Your task to perform on an android device: all mails in gmail Image 0: 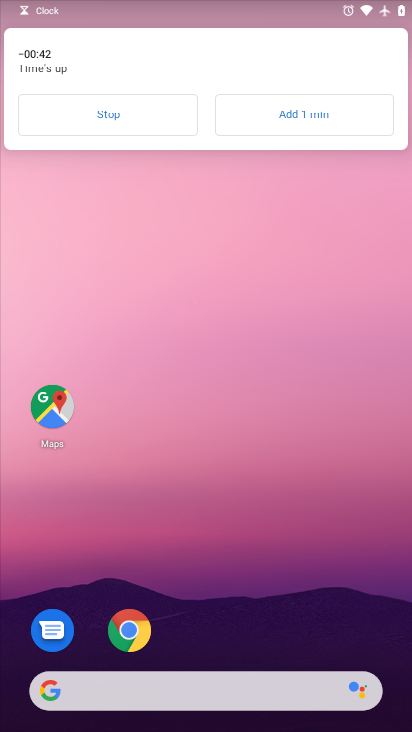
Step 0: click (67, 116)
Your task to perform on an android device: all mails in gmail Image 1: 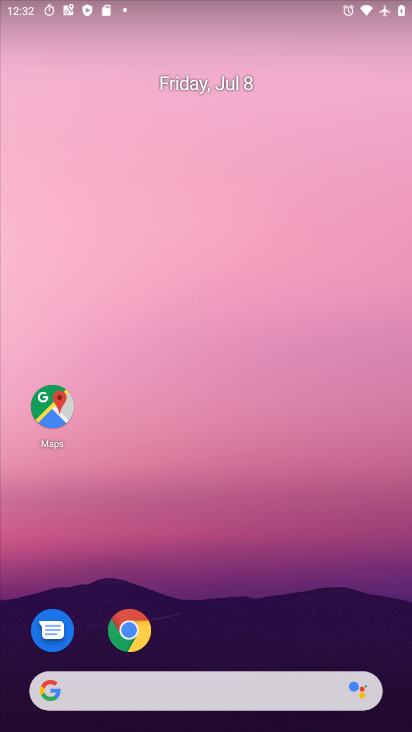
Step 1: drag from (238, 632) to (200, 228)
Your task to perform on an android device: all mails in gmail Image 2: 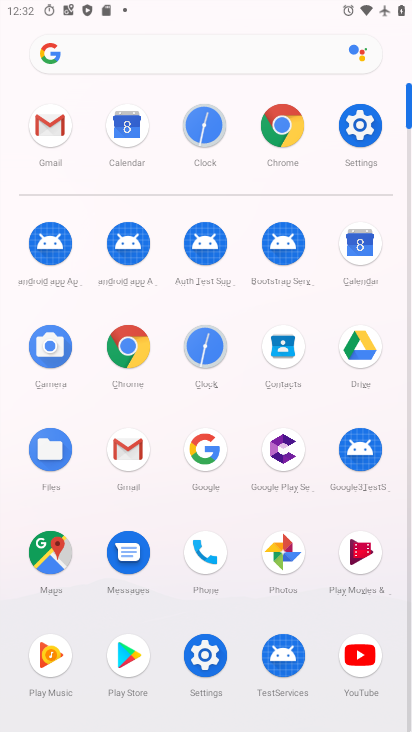
Step 2: click (47, 137)
Your task to perform on an android device: all mails in gmail Image 3: 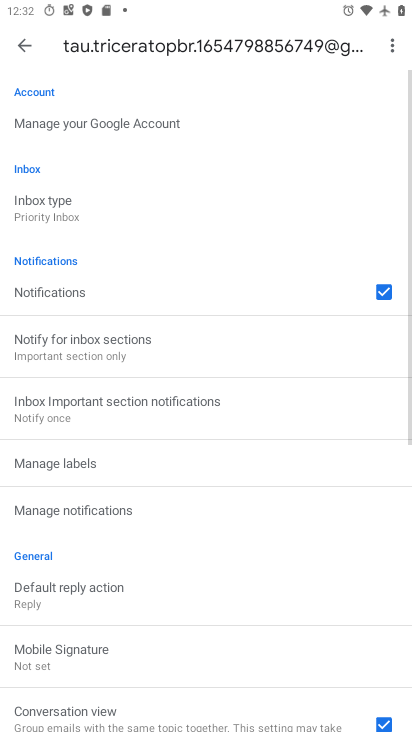
Step 3: click (19, 48)
Your task to perform on an android device: all mails in gmail Image 4: 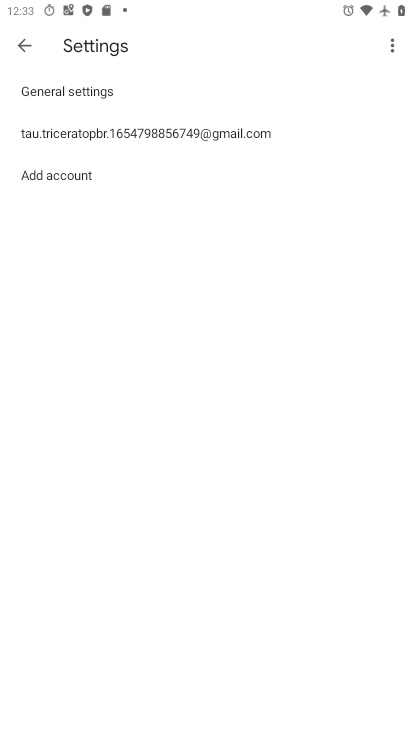
Step 4: click (19, 48)
Your task to perform on an android device: all mails in gmail Image 5: 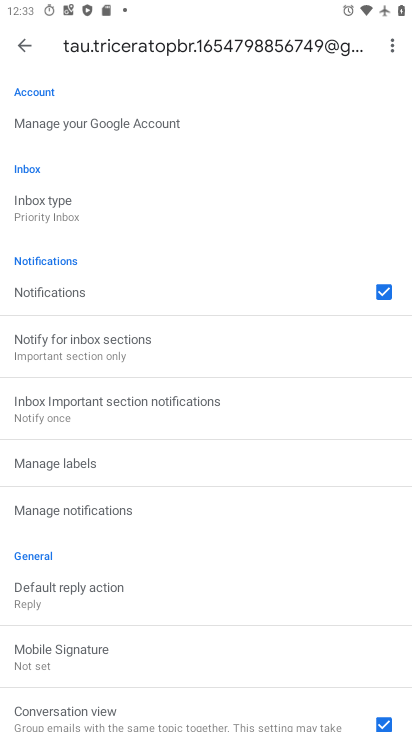
Step 5: click (24, 47)
Your task to perform on an android device: all mails in gmail Image 6: 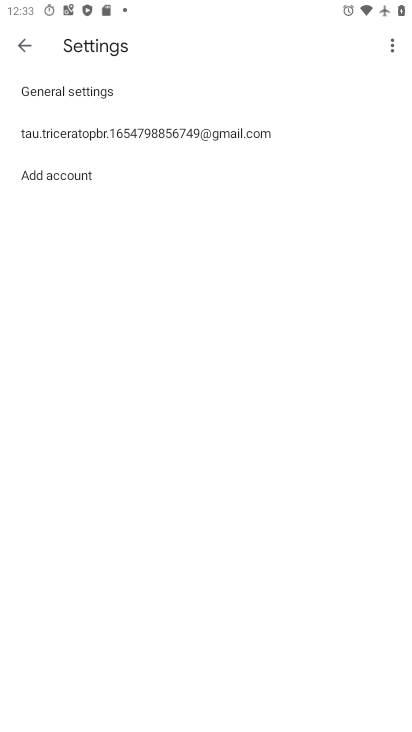
Step 6: click (26, 51)
Your task to perform on an android device: all mails in gmail Image 7: 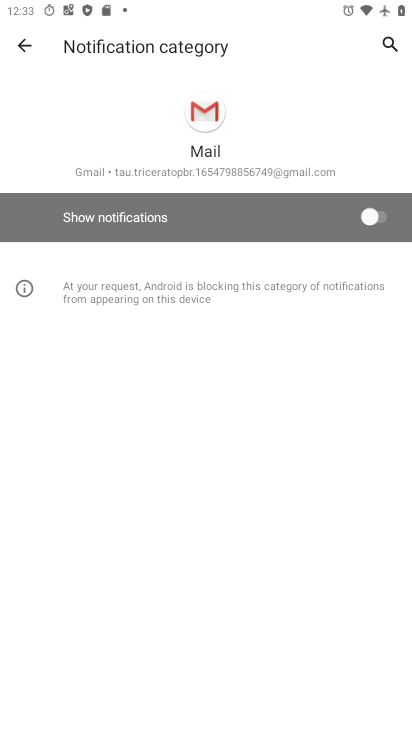
Step 7: click (15, 51)
Your task to perform on an android device: all mails in gmail Image 8: 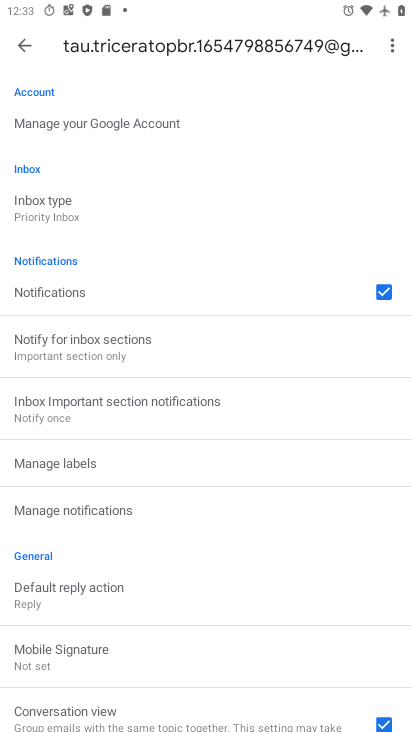
Step 8: press home button
Your task to perform on an android device: all mails in gmail Image 9: 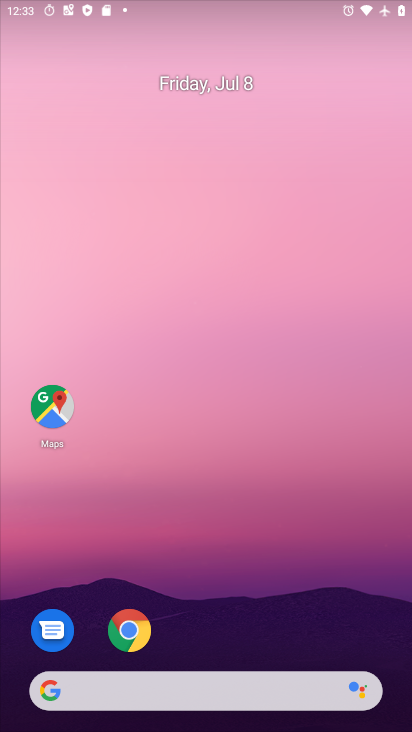
Step 9: drag from (236, 545) to (244, 123)
Your task to perform on an android device: all mails in gmail Image 10: 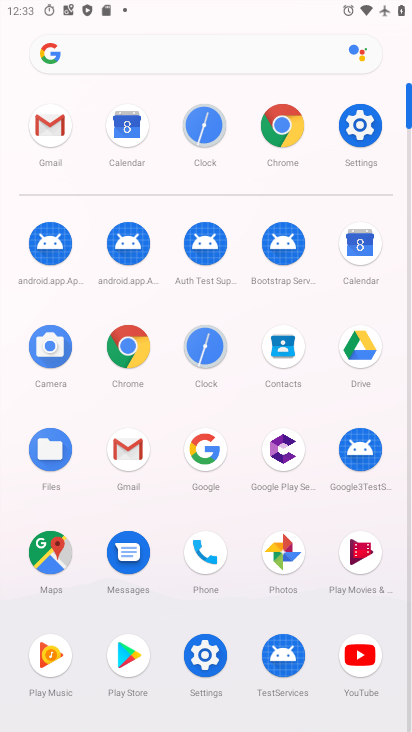
Step 10: click (50, 114)
Your task to perform on an android device: all mails in gmail Image 11: 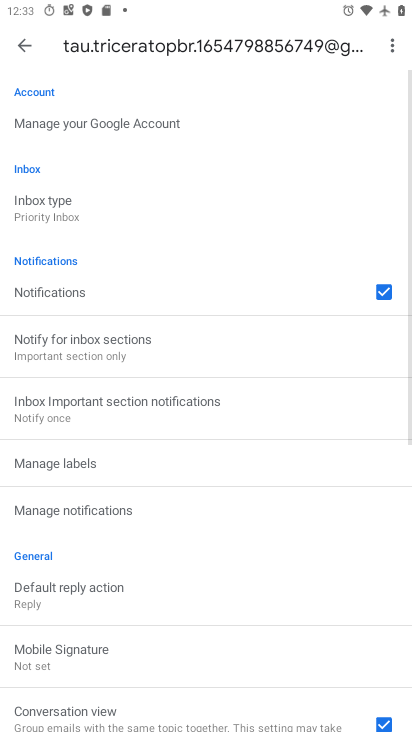
Step 11: click (21, 47)
Your task to perform on an android device: all mails in gmail Image 12: 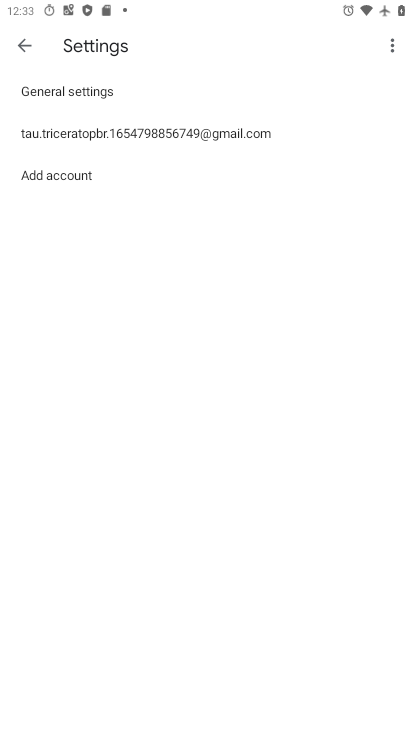
Step 12: click (21, 47)
Your task to perform on an android device: all mails in gmail Image 13: 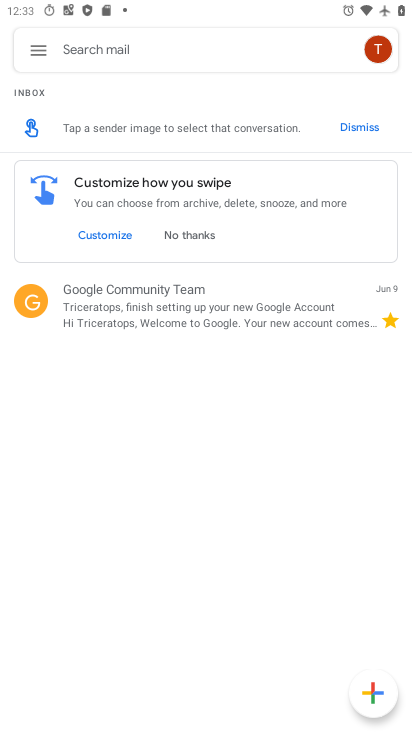
Step 13: drag from (21, 47) to (105, 83)
Your task to perform on an android device: all mails in gmail Image 14: 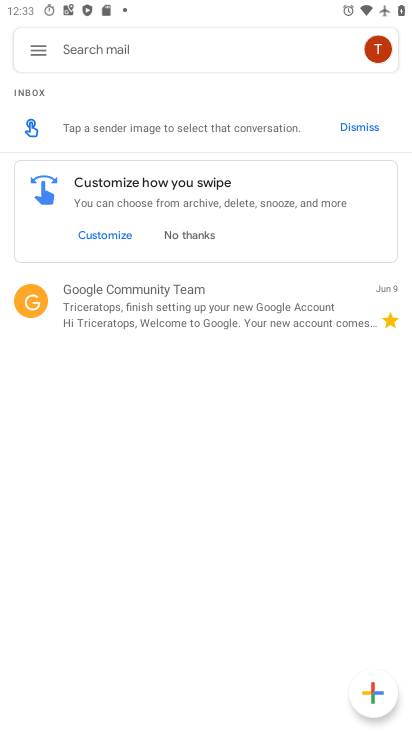
Step 14: click (44, 50)
Your task to perform on an android device: all mails in gmail Image 15: 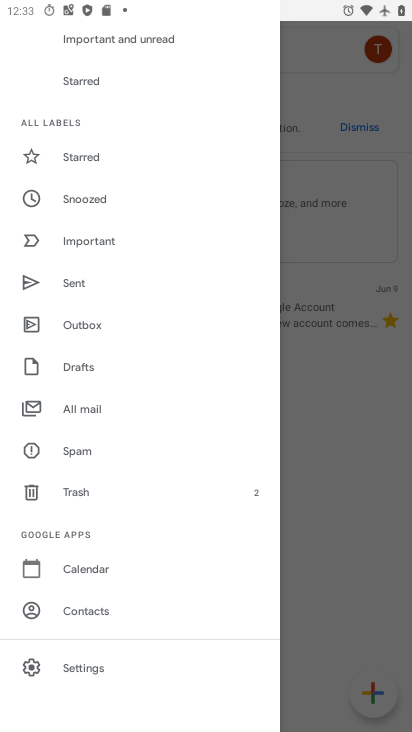
Step 15: click (107, 415)
Your task to perform on an android device: all mails in gmail Image 16: 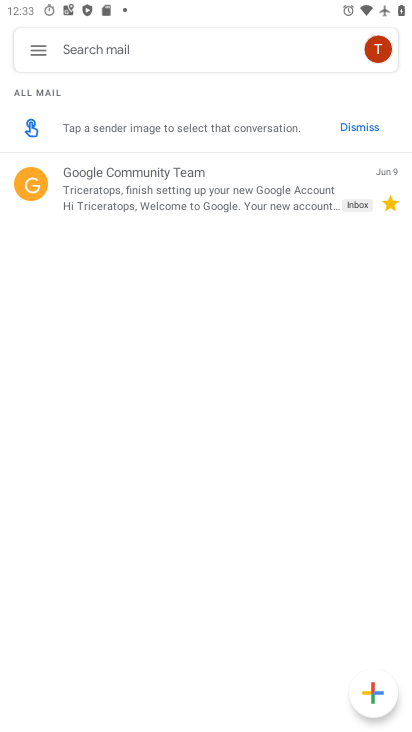
Step 16: task complete